Your task to perform on an android device: Go to settings Image 0: 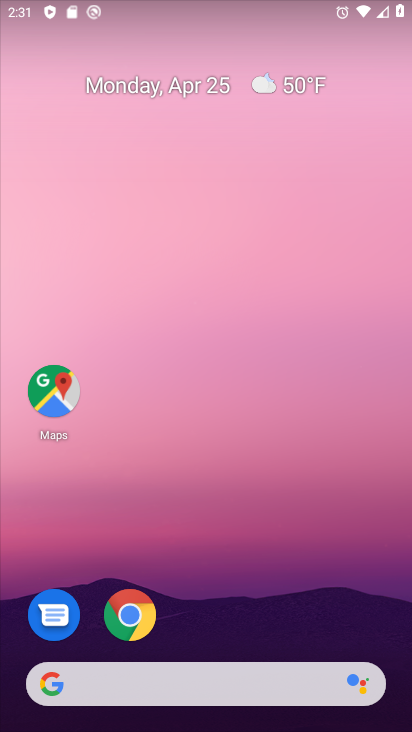
Step 0: drag from (254, 558) to (220, 14)
Your task to perform on an android device: Go to settings Image 1: 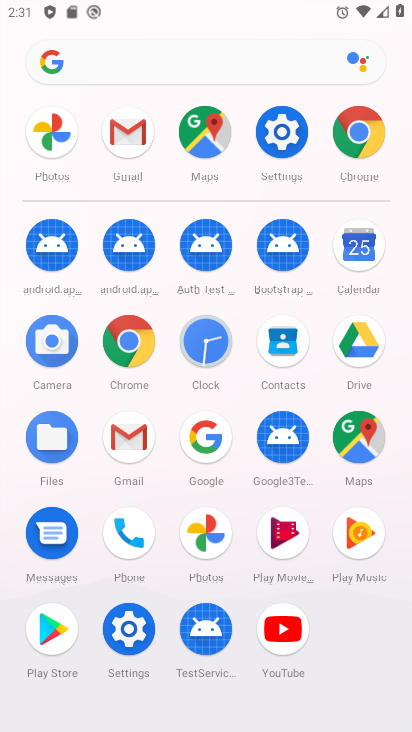
Step 1: click (283, 131)
Your task to perform on an android device: Go to settings Image 2: 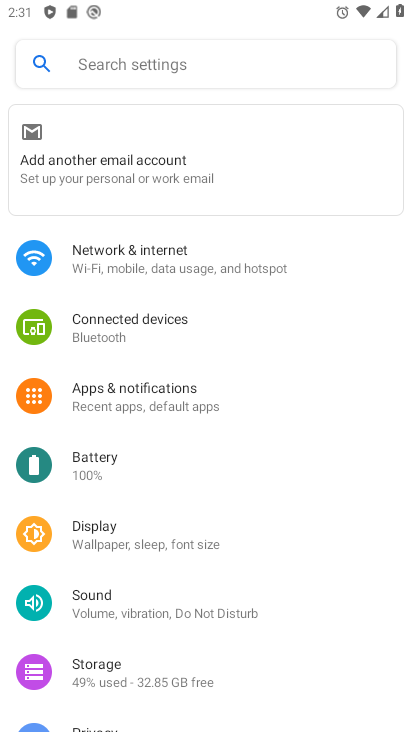
Step 2: task complete